Your task to perform on an android device: turn notification dots off Image 0: 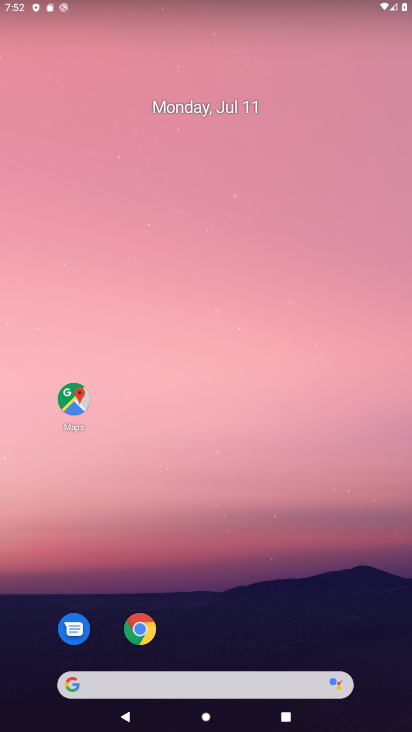
Step 0: drag from (227, 626) to (247, 165)
Your task to perform on an android device: turn notification dots off Image 1: 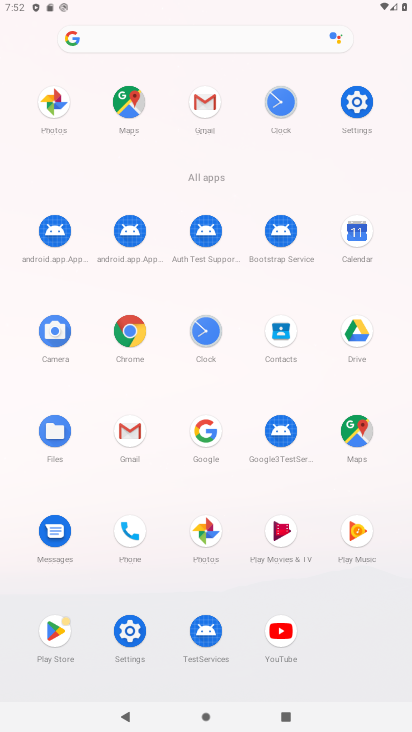
Step 1: click (359, 101)
Your task to perform on an android device: turn notification dots off Image 2: 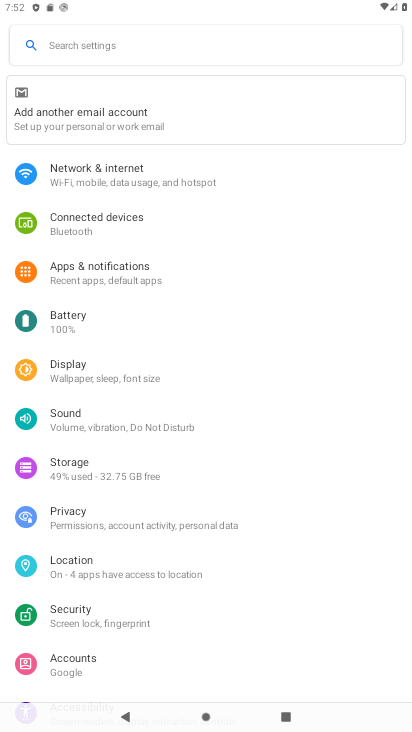
Step 2: click (124, 274)
Your task to perform on an android device: turn notification dots off Image 3: 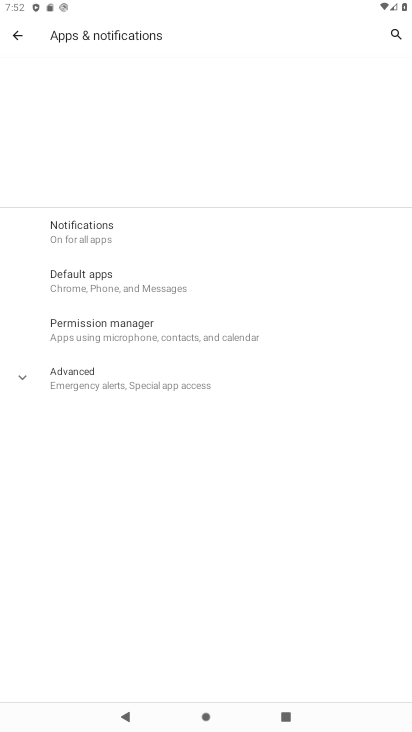
Step 3: click (103, 237)
Your task to perform on an android device: turn notification dots off Image 4: 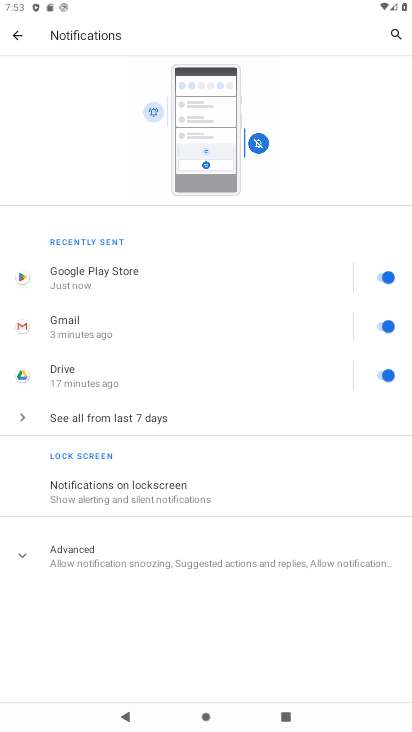
Step 4: click (98, 558)
Your task to perform on an android device: turn notification dots off Image 5: 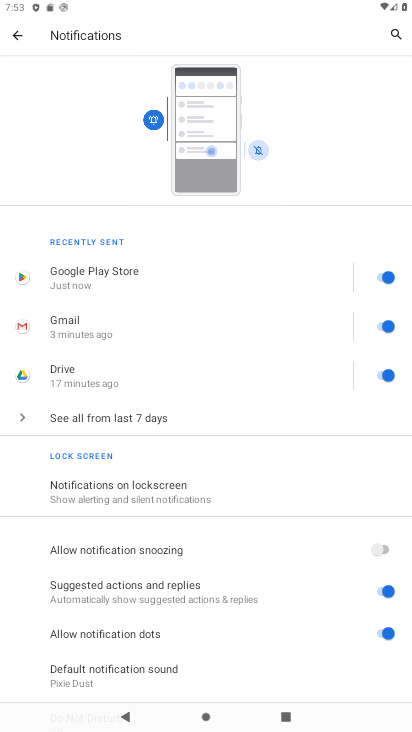
Step 5: click (391, 633)
Your task to perform on an android device: turn notification dots off Image 6: 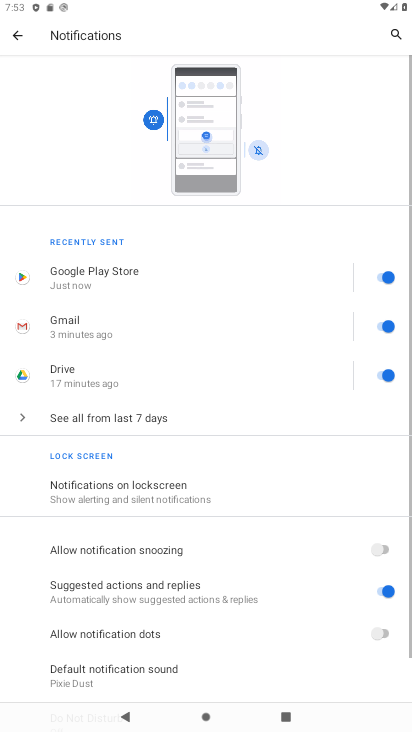
Step 6: task complete